Your task to perform on an android device: Open location settings Image 0: 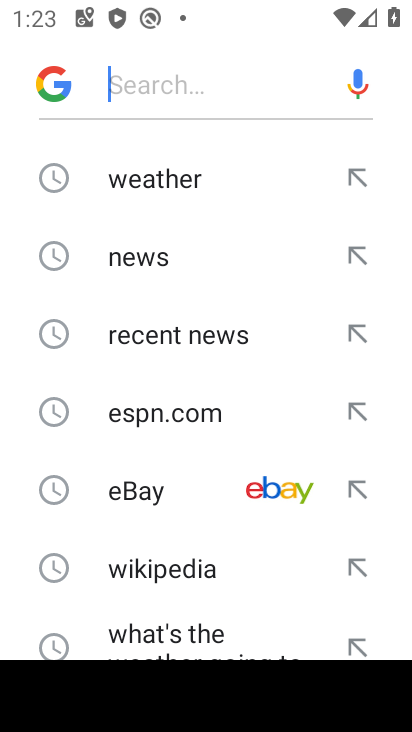
Step 0: click (385, 407)
Your task to perform on an android device: Open location settings Image 1: 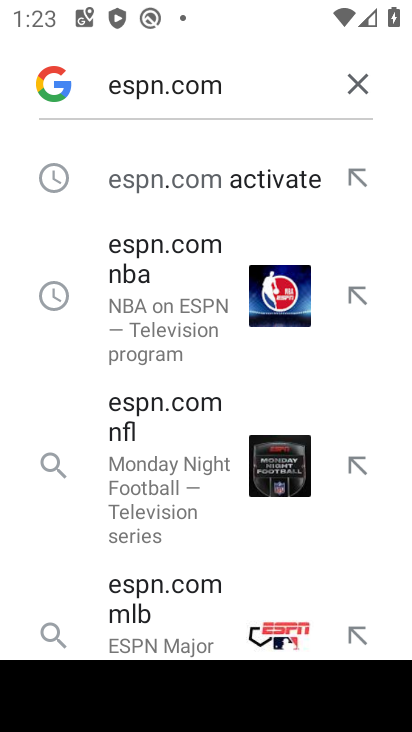
Step 1: press back button
Your task to perform on an android device: Open location settings Image 2: 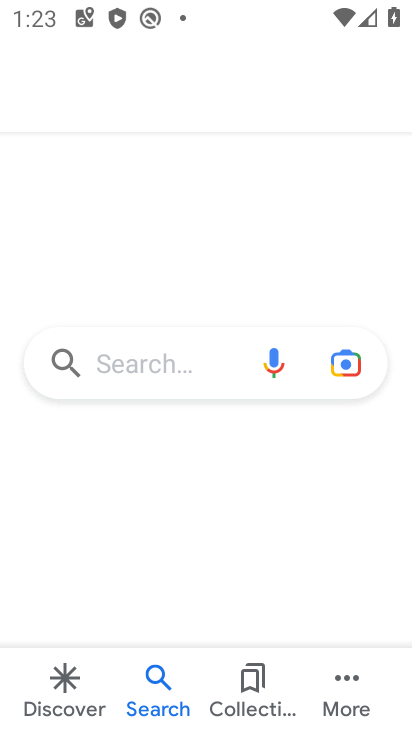
Step 2: press back button
Your task to perform on an android device: Open location settings Image 3: 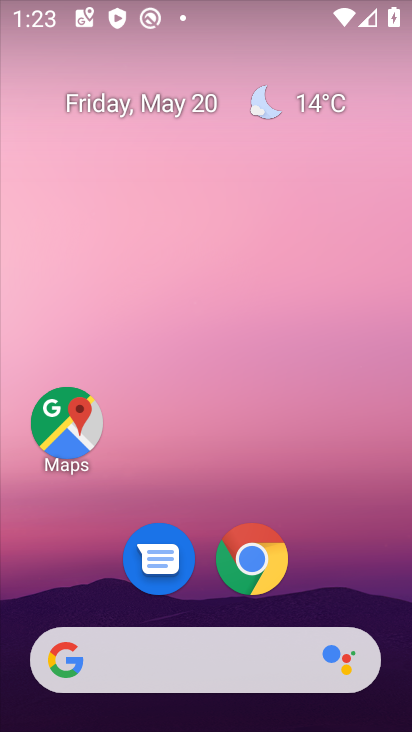
Step 3: drag from (357, 585) to (224, 189)
Your task to perform on an android device: Open location settings Image 4: 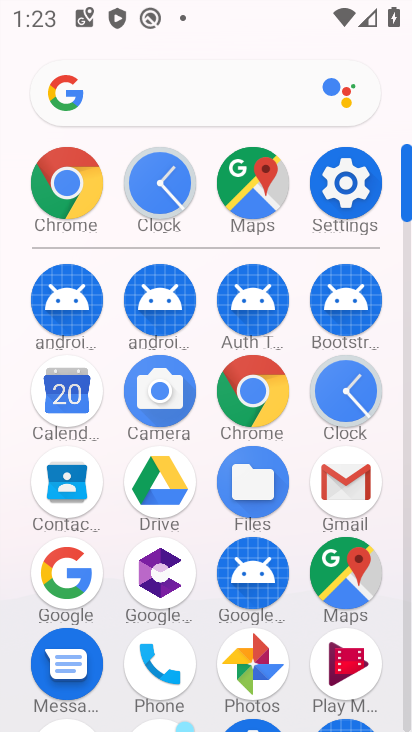
Step 4: click (344, 216)
Your task to perform on an android device: Open location settings Image 5: 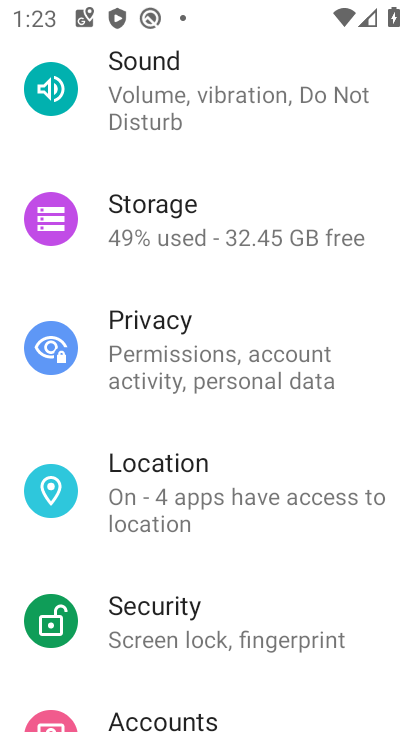
Step 5: click (250, 502)
Your task to perform on an android device: Open location settings Image 6: 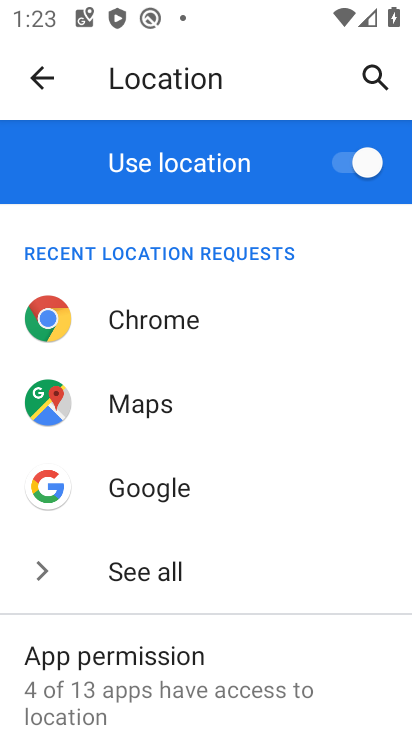
Step 6: task complete